Your task to perform on an android device: toggle data saver in the chrome app Image 0: 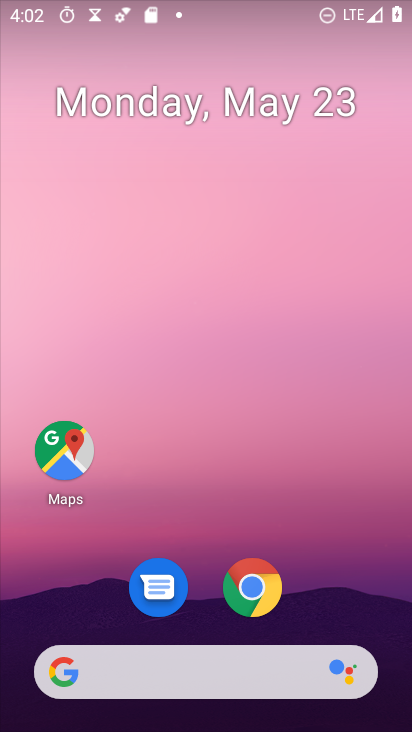
Step 0: drag from (209, 601) to (244, 143)
Your task to perform on an android device: toggle data saver in the chrome app Image 1: 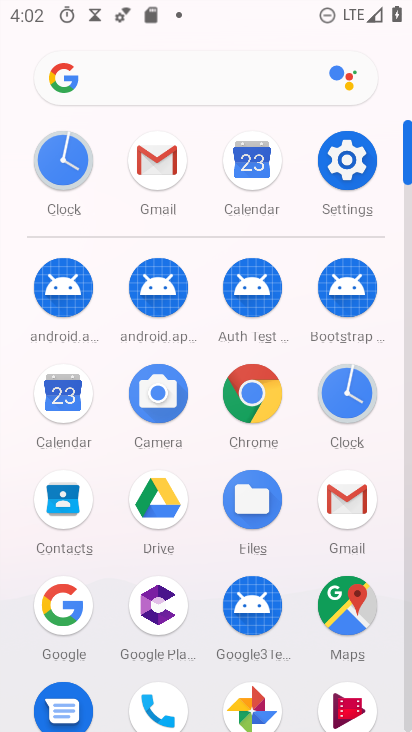
Step 1: click (257, 402)
Your task to perform on an android device: toggle data saver in the chrome app Image 2: 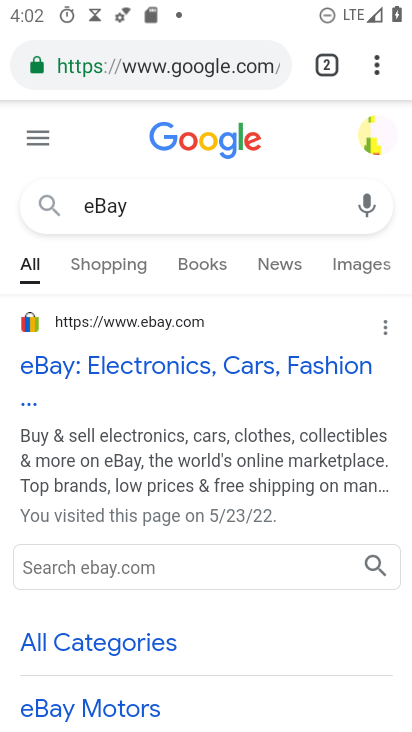
Step 2: click (378, 59)
Your task to perform on an android device: toggle data saver in the chrome app Image 3: 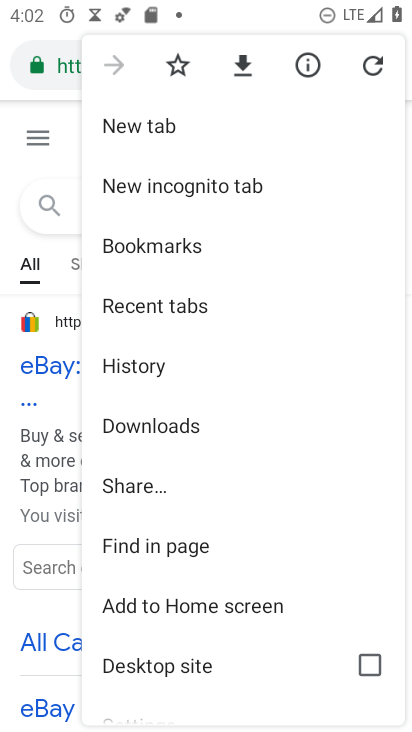
Step 3: drag from (152, 637) to (200, 296)
Your task to perform on an android device: toggle data saver in the chrome app Image 4: 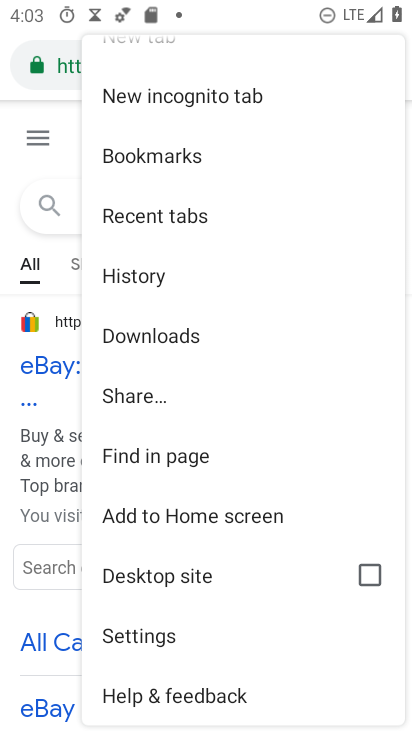
Step 4: click (172, 639)
Your task to perform on an android device: toggle data saver in the chrome app Image 5: 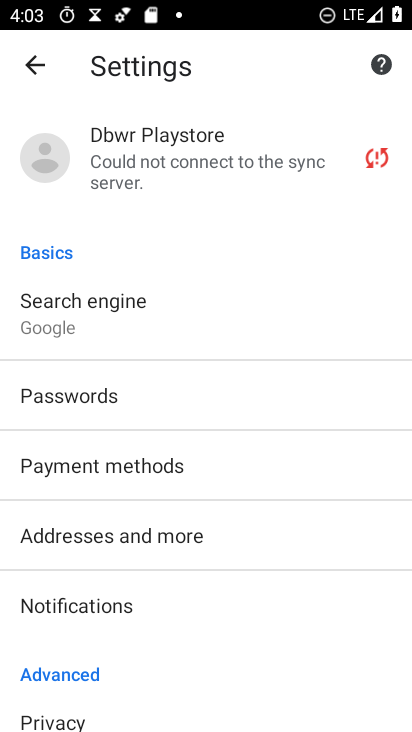
Step 5: drag from (169, 630) to (216, 203)
Your task to perform on an android device: toggle data saver in the chrome app Image 6: 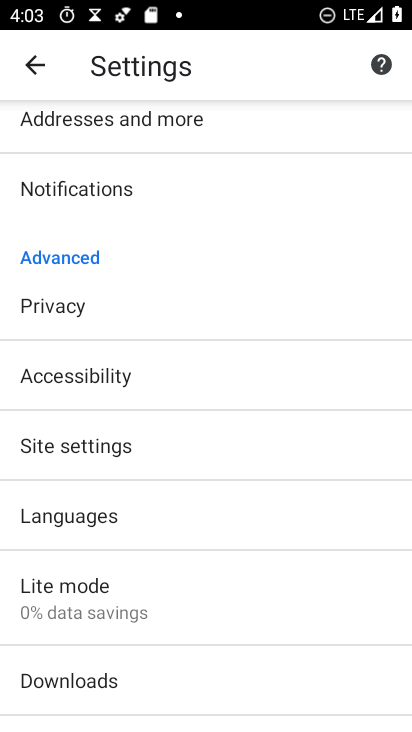
Step 6: drag from (125, 631) to (155, 427)
Your task to perform on an android device: toggle data saver in the chrome app Image 7: 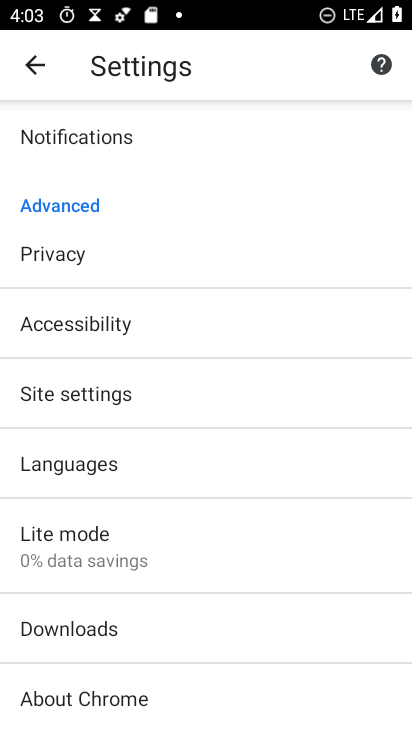
Step 7: click (116, 540)
Your task to perform on an android device: toggle data saver in the chrome app Image 8: 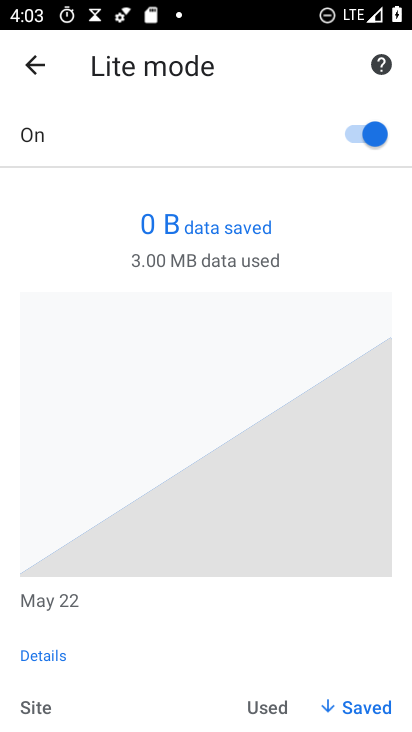
Step 8: click (341, 127)
Your task to perform on an android device: toggle data saver in the chrome app Image 9: 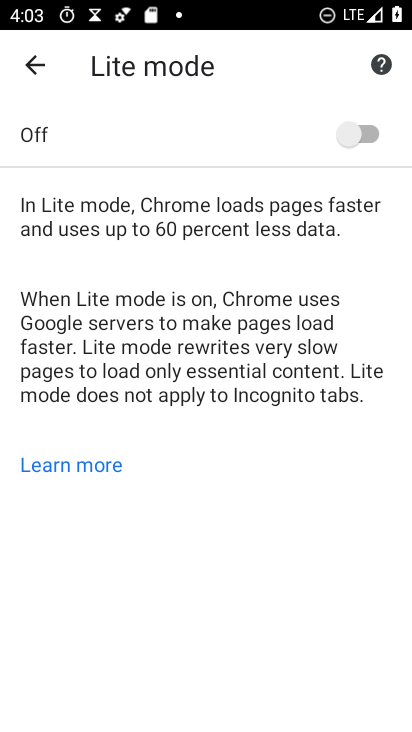
Step 9: task complete